Your task to perform on an android device: Open maps Image 0: 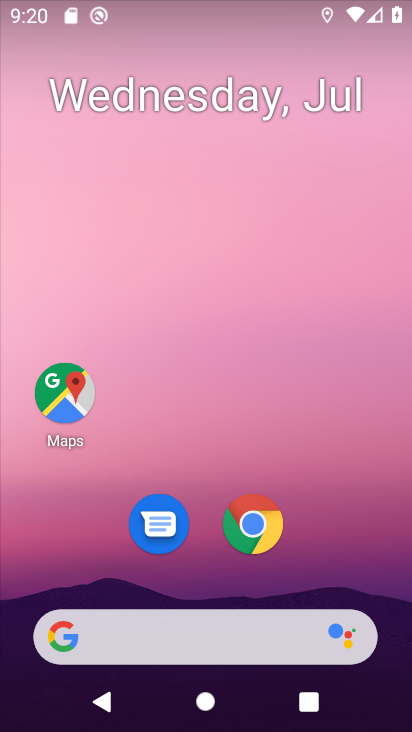
Step 0: click (69, 397)
Your task to perform on an android device: Open maps Image 1: 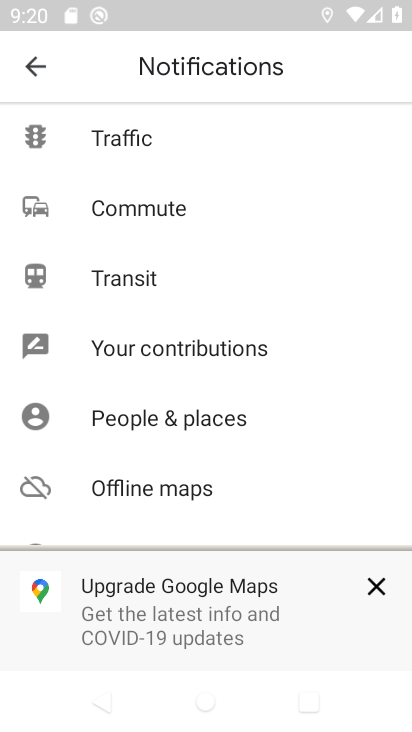
Step 1: click (29, 51)
Your task to perform on an android device: Open maps Image 2: 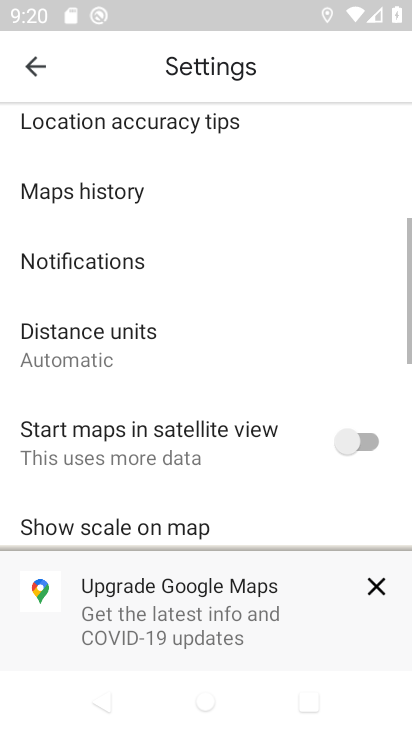
Step 2: click (31, 60)
Your task to perform on an android device: Open maps Image 3: 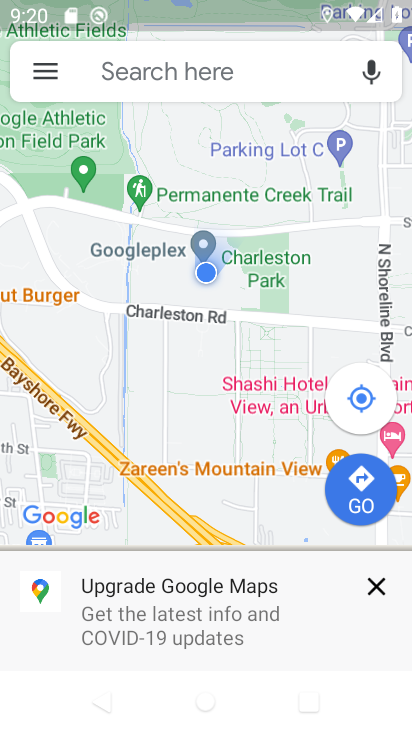
Step 3: task complete